Your task to perform on an android device: Open maps Image 0: 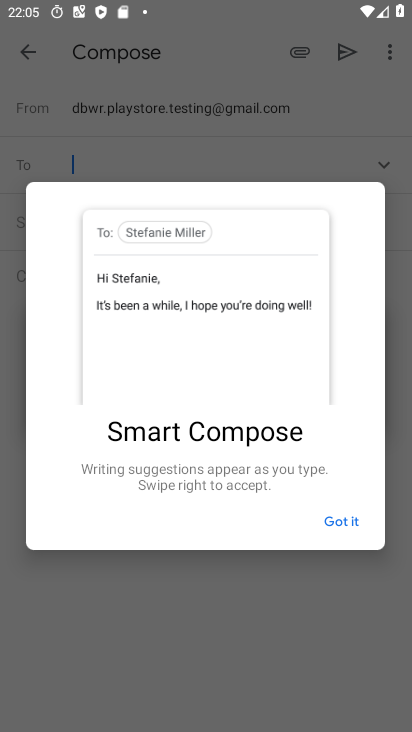
Step 0: press home button
Your task to perform on an android device: Open maps Image 1: 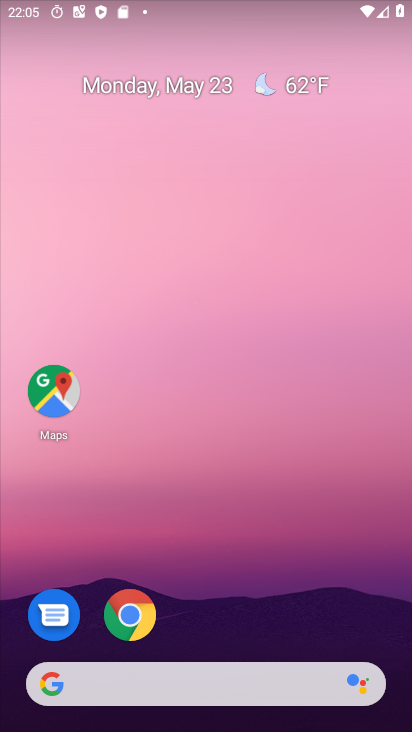
Step 1: click (57, 395)
Your task to perform on an android device: Open maps Image 2: 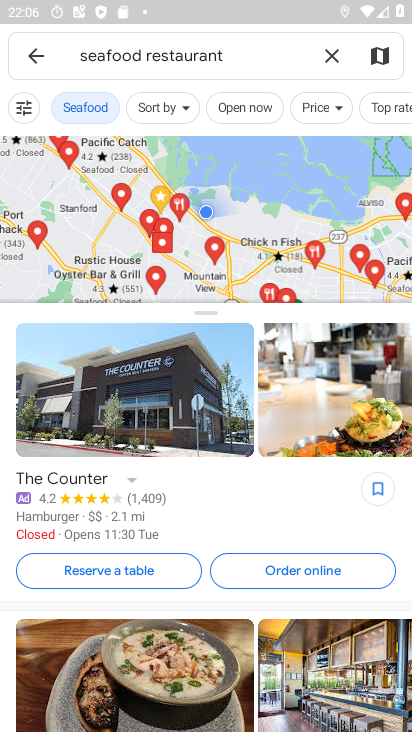
Step 2: task complete